Your task to perform on an android device: Go to display settings Image 0: 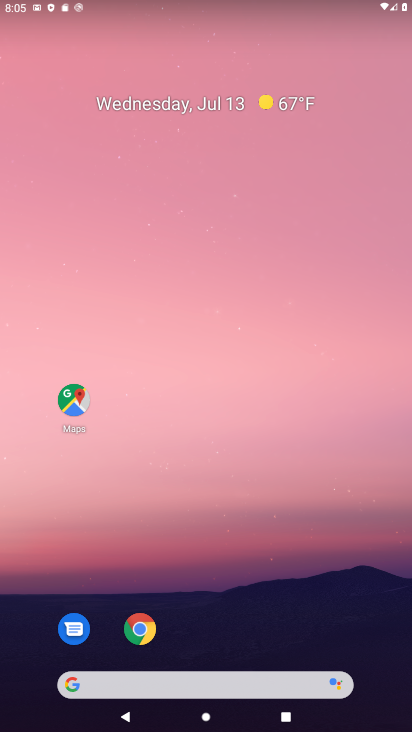
Step 0: drag from (192, 624) to (264, 59)
Your task to perform on an android device: Go to display settings Image 1: 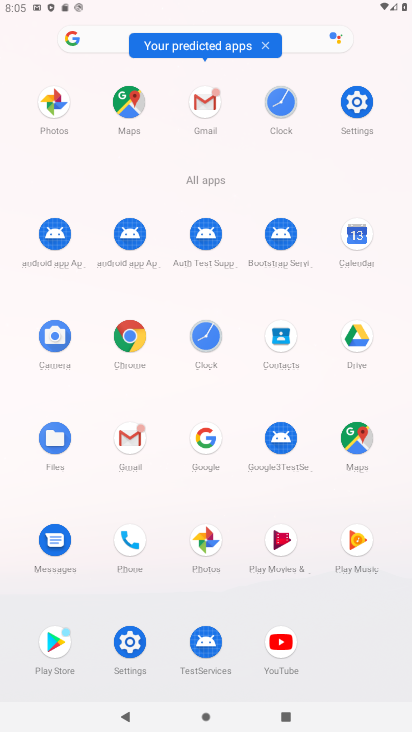
Step 1: click (123, 641)
Your task to perform on an android device: Go to display settings Image 2: 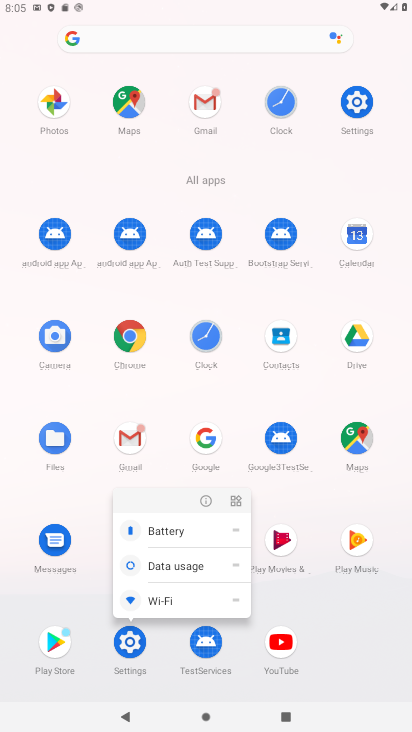
Step 2: click (131, 653)
Your task to perform on an android device: Go to display settings Image 3: 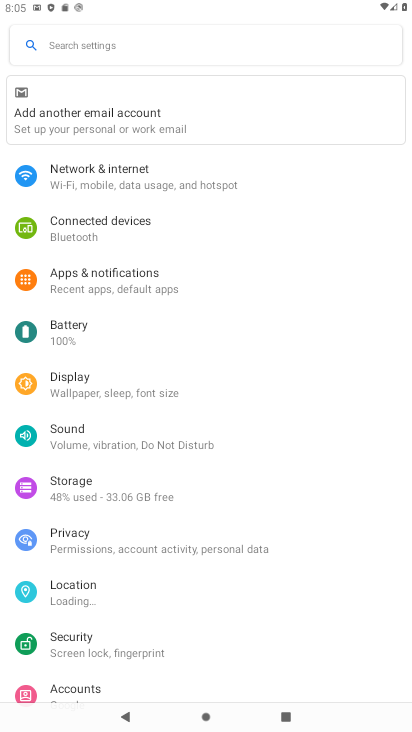
Step 3: click (95, 388)
Your task to perform on an android device: Go to display settings Image 4: 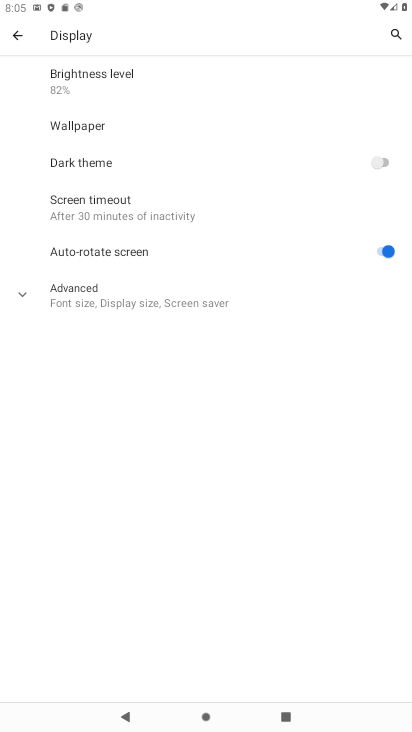
Step 4: task complete